Your task to perform on an android device: Open calendar and show me the first week of next month Image 0: 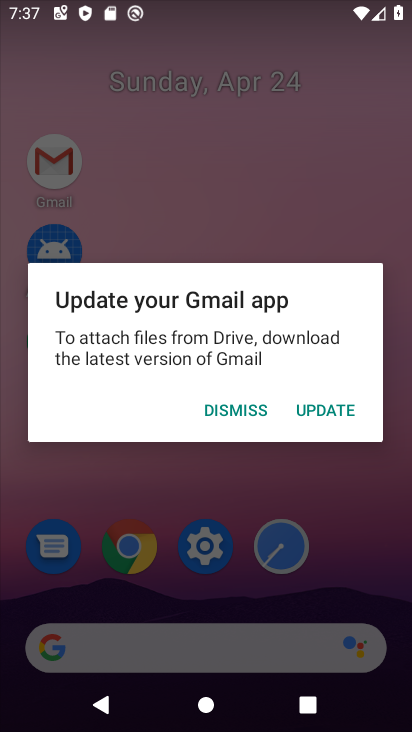
Step 0: press home button
Your task to perform on an android device: Open calendar and show me the first week of next month Image 1: 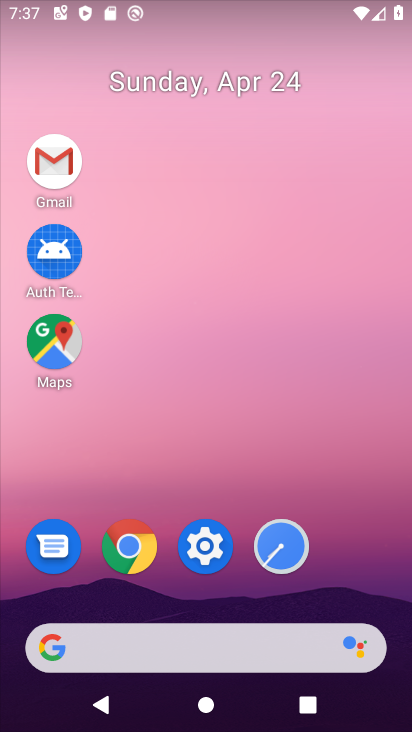
Step 1: drag from (358, 553) to (303, 19)
Your task to perform on an android device: Open calendar and show me the first week of next month Image 2: 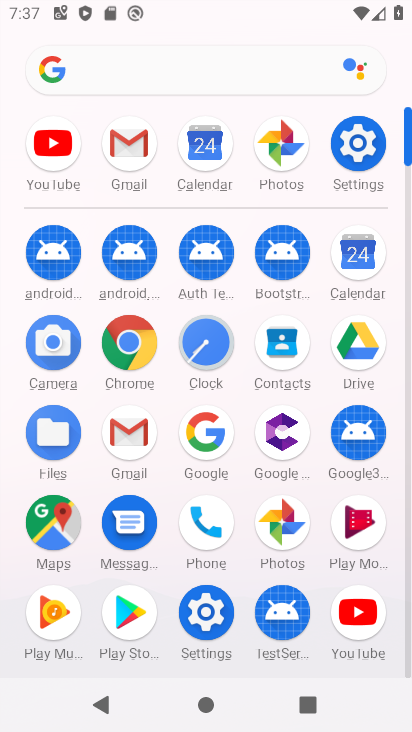
Step 2: click (356, 258)
Your task to perform on an android device: Open calendar and show me the first week of next month Image 3: 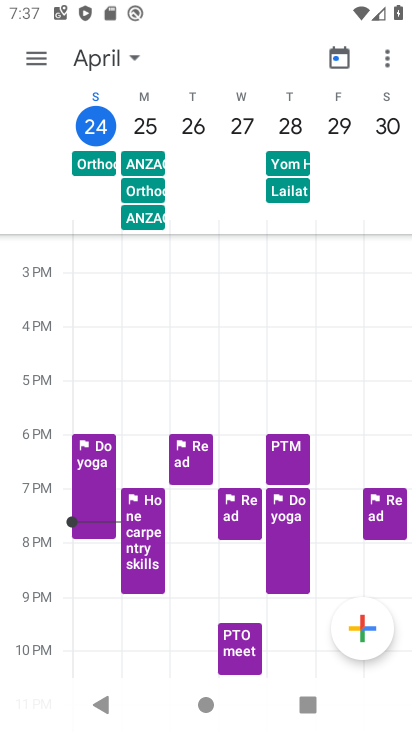
Step 3: click (136, 55)
Your task to perform on an android device: Open calendar and show me the first week of next month Image 4: 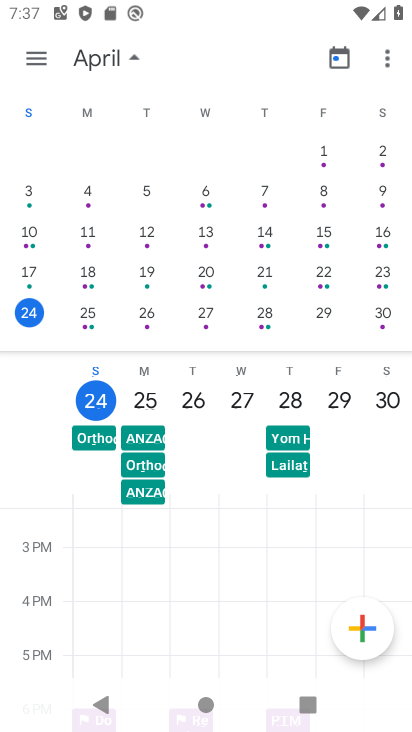
Step 4: drag from (380, 241) to (66, 216)
Your task to perform on an android device: Open calendar and show me the first week of next month Image 5: 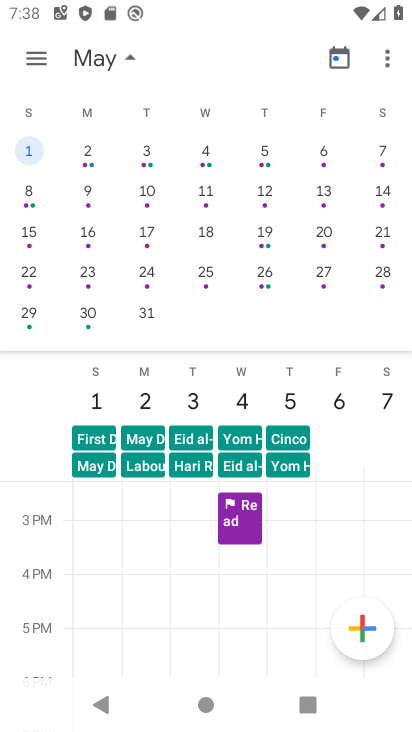
Step 5: click (82, 148)
Your task to perform on an android device: Open calendar and show me the first week of next month Image 6: 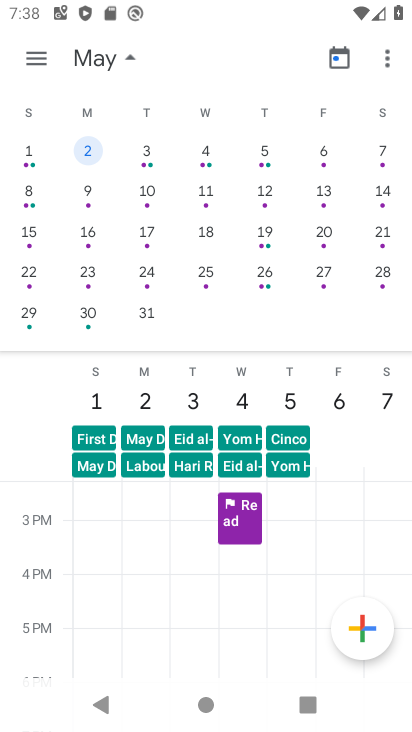
Step 6: task complete